Your task to perform on an android device: change the upload size in google photos Image 0: 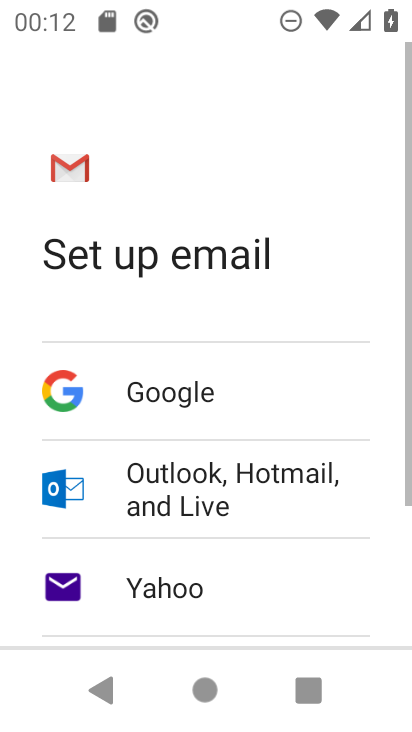
Step 0: press home button
Your task to perform on an android device: change the upload size in google photos Image 1: 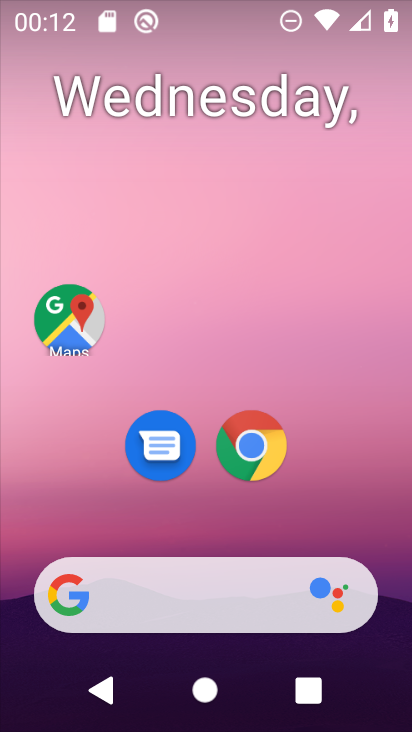
Step 1: drag from (214, 525) to (399, 1)
Your task to perform on an android device: change the upload size in google photos Image 2: 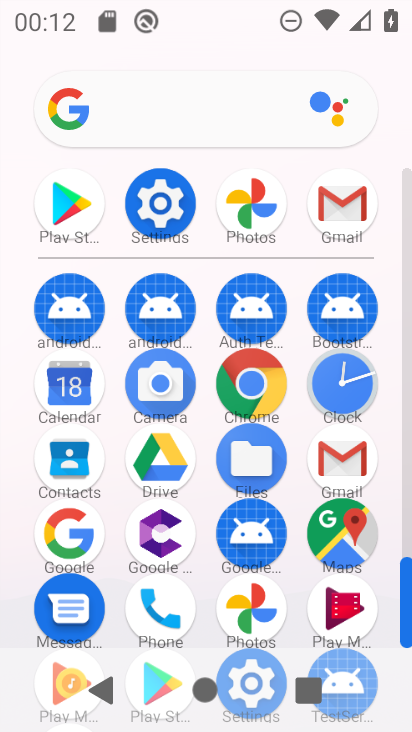
Step 2: click (248, 196)
Your task to perform on an android device: change the upload size in google photos Image 3: 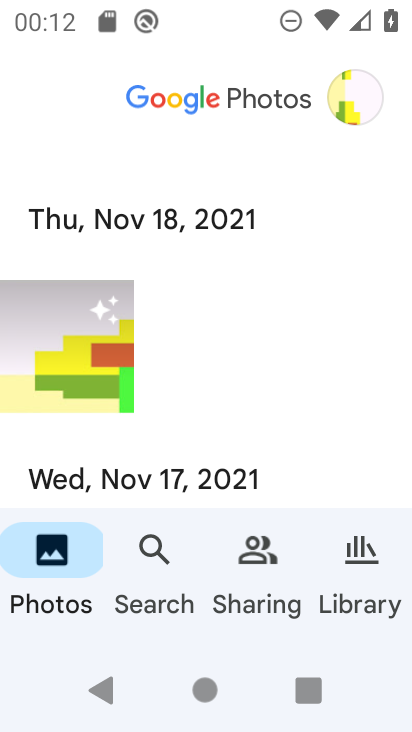
Step 3: click (363, 105)
Your task to perform on an android device: change the upload size in google photos Image 4: 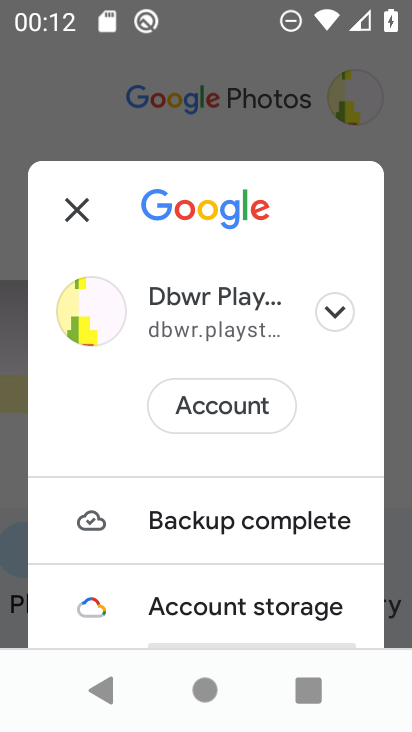
Step 4: drag from (180, 479) to (262, 190)
Your task to perform on an android device: change the upload size in google photos Image 5: 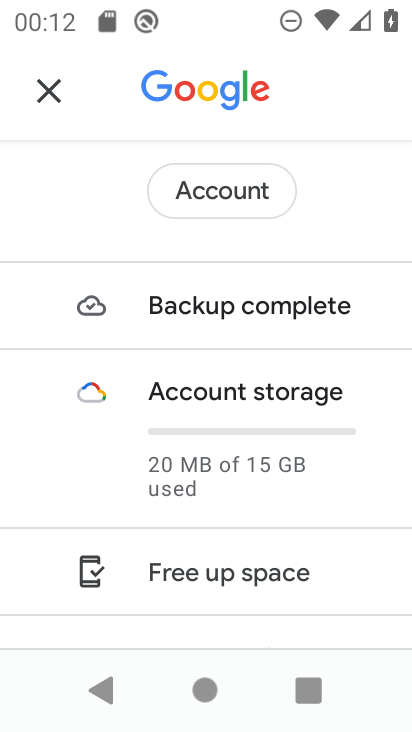
Step 5: drag from (248, 489) to (288, 198)
Your task to perform on an android device: change the upload size in google photos Image 6: 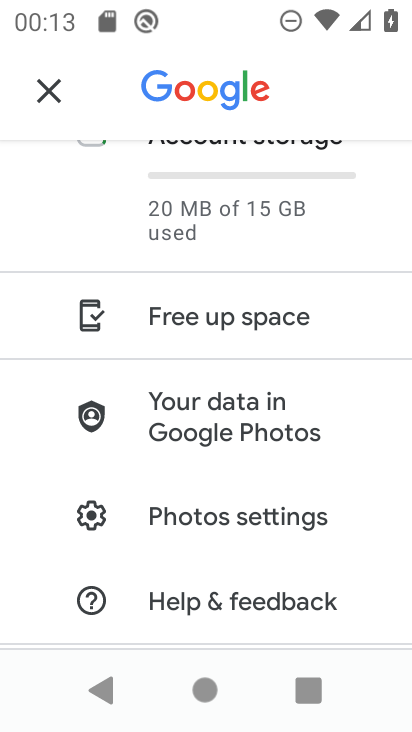
Step 6: click (222, 522)
Your task to perform on an android device: change the upload size in google photos Image 7: 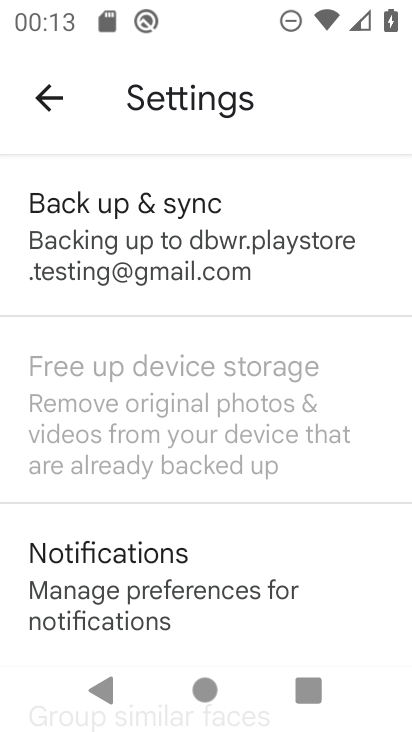
Step 7: click (245, 253)
Your task to perform on an android device: change the upload size in google photos Image 8: 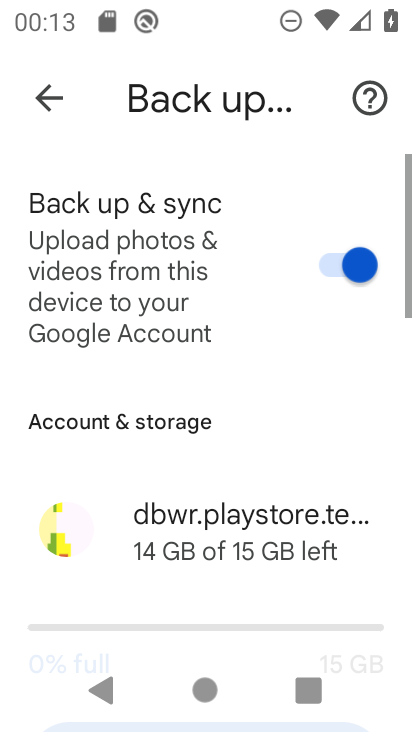
Step 8: drag from (210, 510) to (293, 92)
Your task to perform on an android device: change the upload size in google photos Image 9: 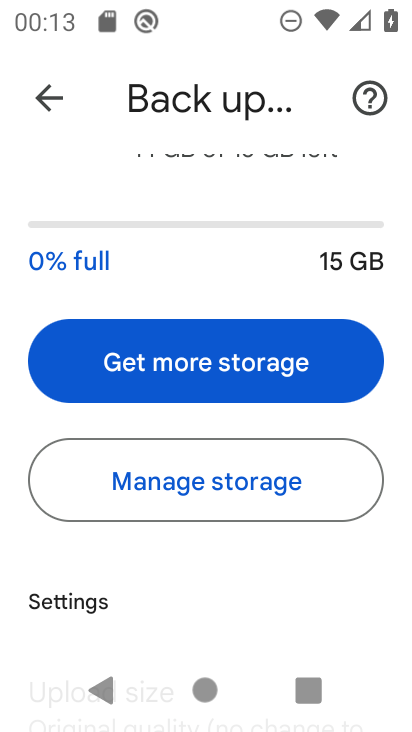
Step 9: drag from (244, 496) to (342, 47)
Your task to perform on an android device: change the upload size in google photos Image 10: 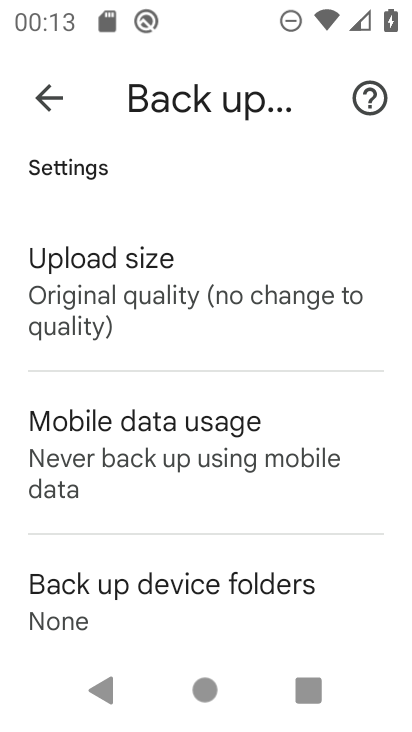
Step 10: click (196, 246)
Your task to perform on an android device: change the upload size in google photos Image 11: 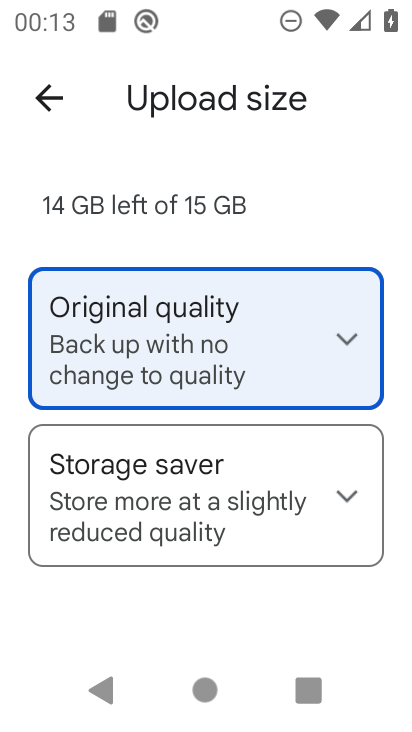
Step 11: click (134, 450)
Your task to perform on an android device: change the upload size in google photos Image 12: 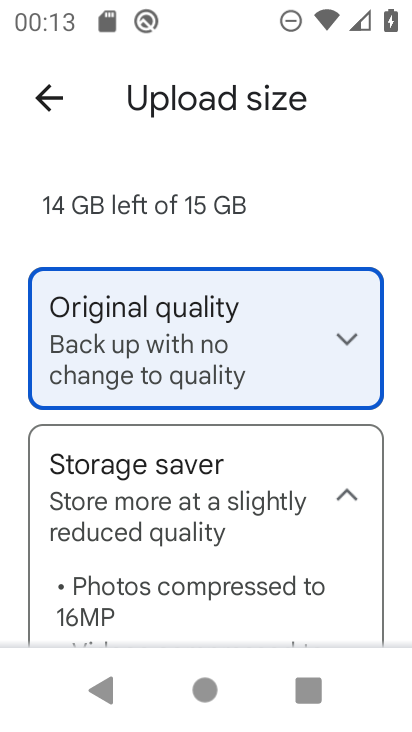
Step 12: click (169, 498)
Your task to perform on an android device: change the upload size in google photos Image 13: 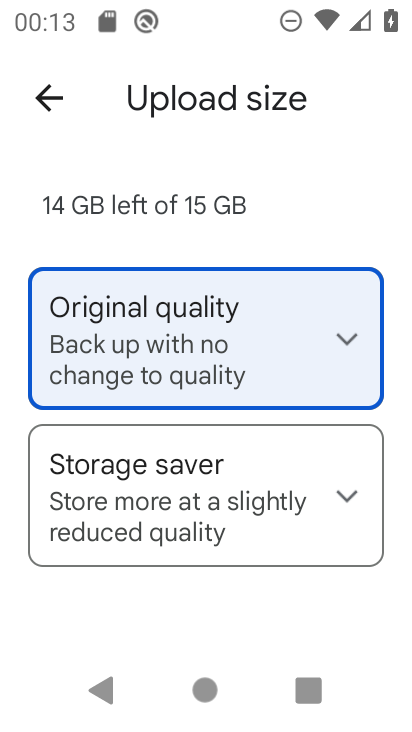
Step 13: drag from (199, 541) to (325, 128)
Your task to perform on an android device: change the upload size in google photos Image 14: 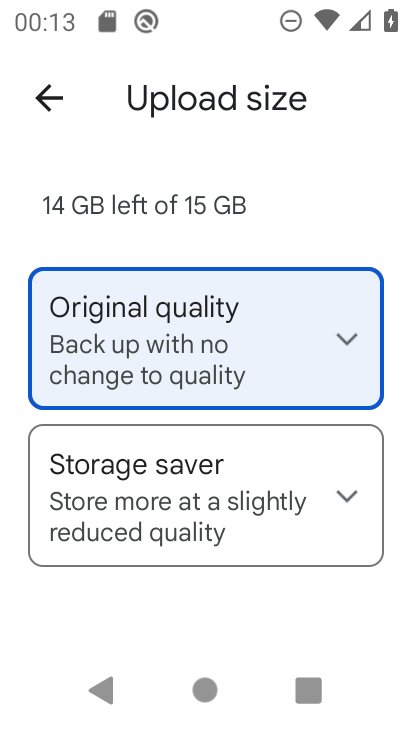
Step 14: click (188, 463)
Your task to perform on an android device: change the upload size in google photos Image 15: 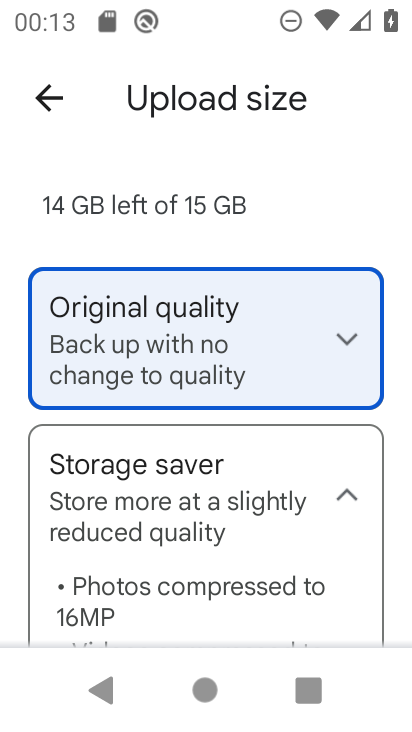
Step 15: drag from (312, 115) to (342, 0)
Your task to perform on an android device: change the upload size in google photos Image 16: 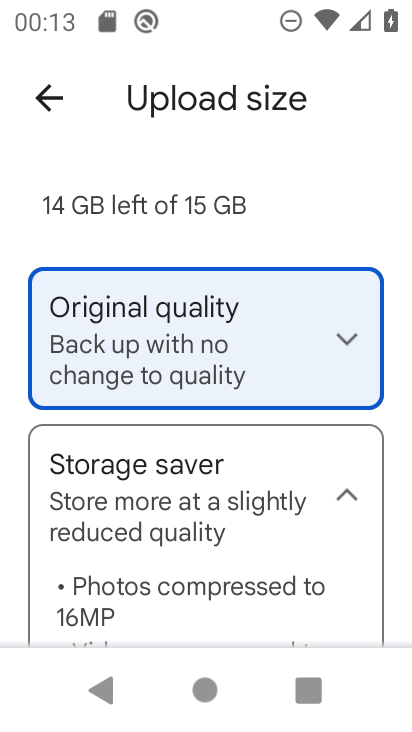
Step 16: drag from (388, 449) to (399, 106)
Your task to perform on an android device: change the upload size in google photos Image 17: 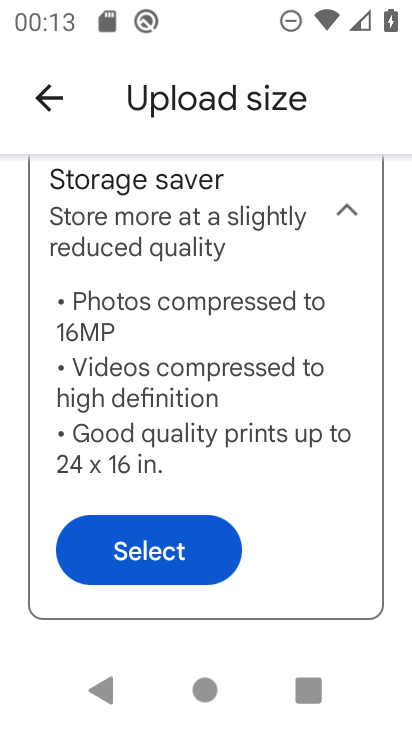
Step 17: click (145, 559)
Your task to perform on an android device: change the upload size in google photos Image 18: 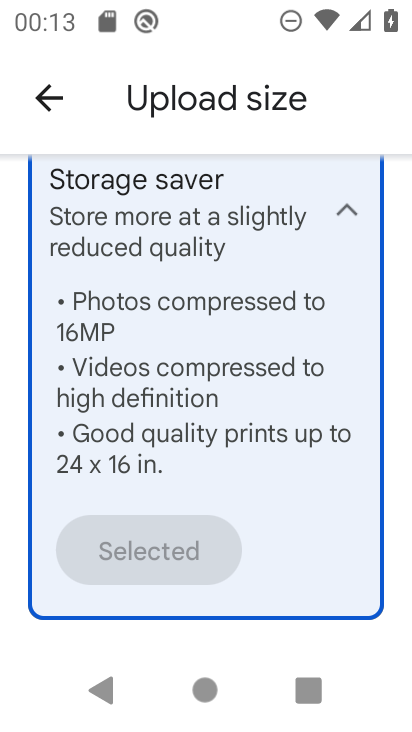
Step 18: task complete